Your task to perform on an android device: turn off airplane mode Image 0: 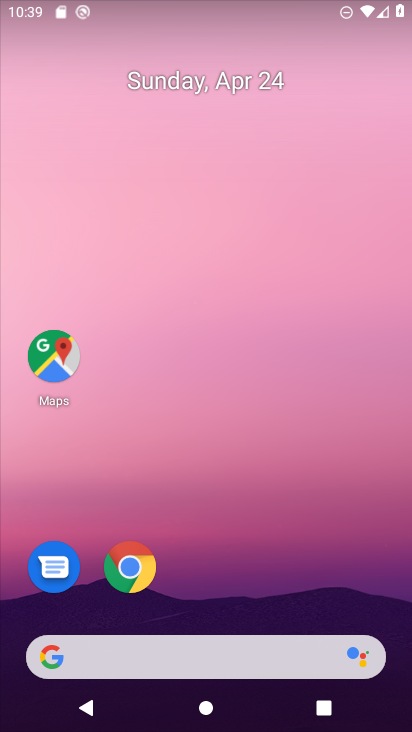
Step 0: drag from (193, 614) to (188, 118)
Your task to perform on an android device: turn off airplane mode Image 1: 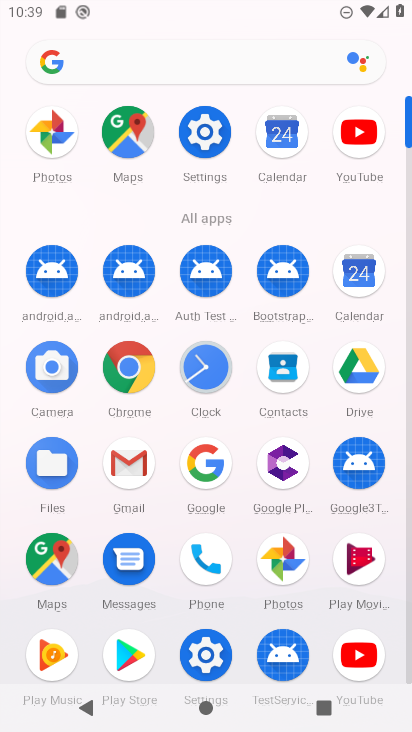
Step 1: click (203, 653)
Your task to perform on an android device: turn off airplane mode Image 2: 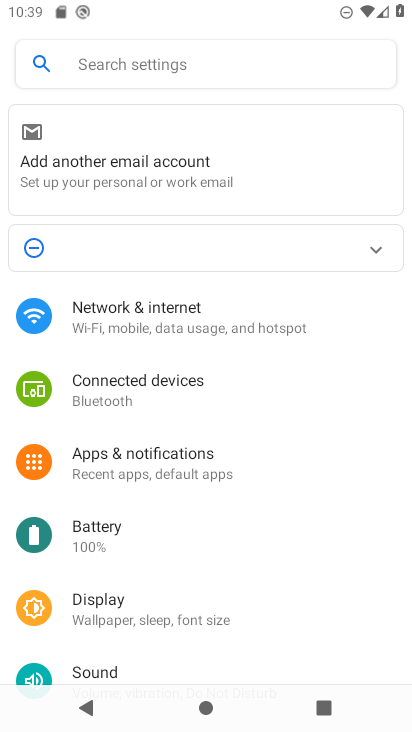
Step 2: click (126, 336)
Your task to perform on an android device: turn off airplane mode Image 3: 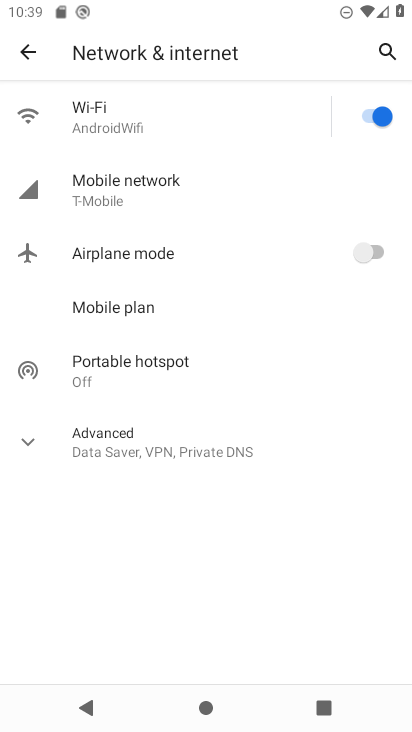
Step 3: task complete